Your task to perform on an android device: Go to network settings Image 0: 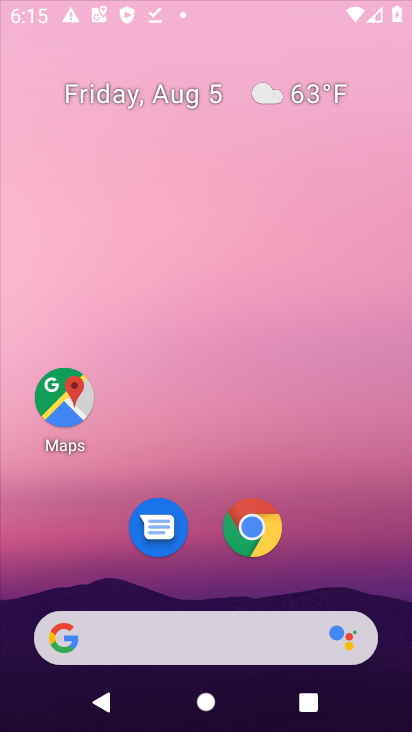
Step 0: click (213, 34)
Your task to perform on an android device: Go to network settings Image 1: 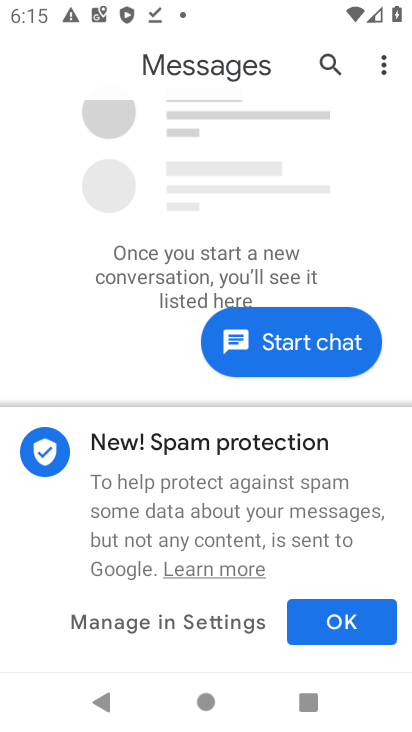
Step 1: drag from (201, 587) to (180, 168)
Your task to perform on an android device: Go to network settings Image 2: 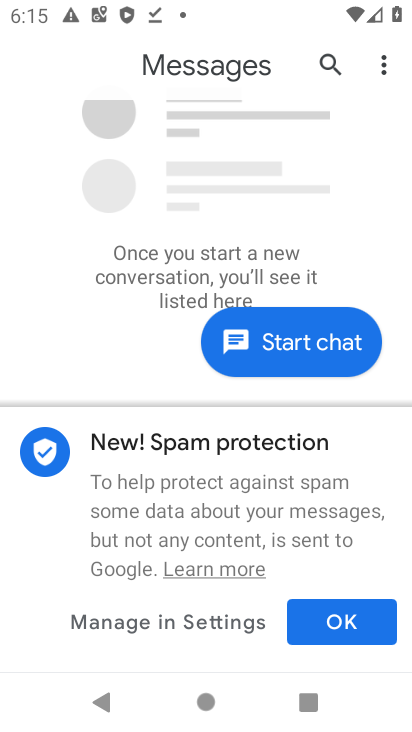
Step 2: press home button
Your task to perform on an android device: Go to network settings Image 3: 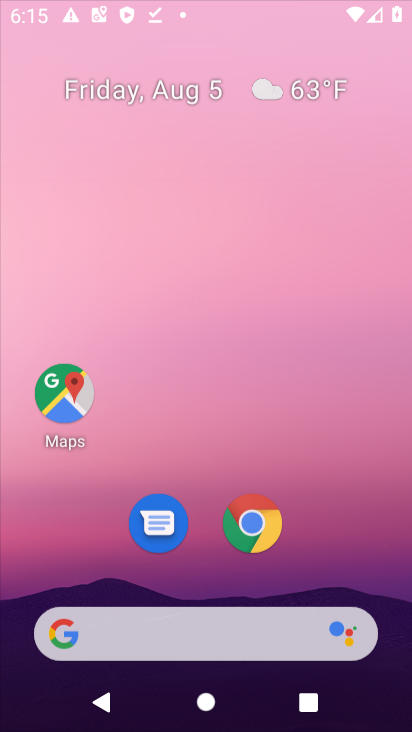
Step 3: drag from (262, 426) to (276, 54)
Your task to perform on an android device: Go to network settings Image 4: 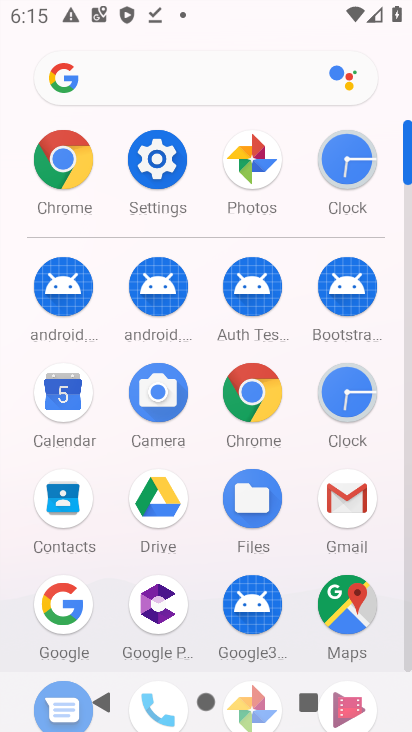
Step 4: click (335, 474)
Your task to perform on an android device: Go to network settings Image 5: 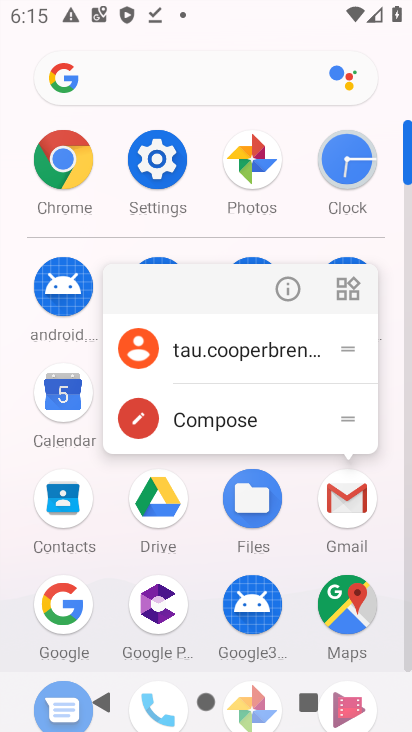
Step 5: click (292, 287)
Your task to perform on an android device: Go to network settings Image 6: 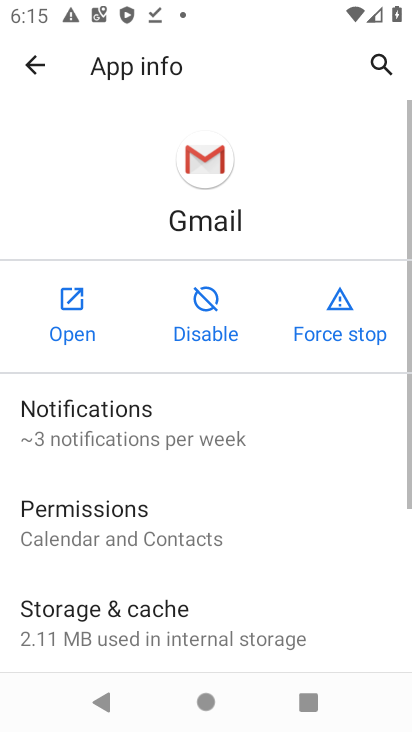
Step 6: click (69, 292)
Your task to perform on an android device: Go to network settings Image 7: 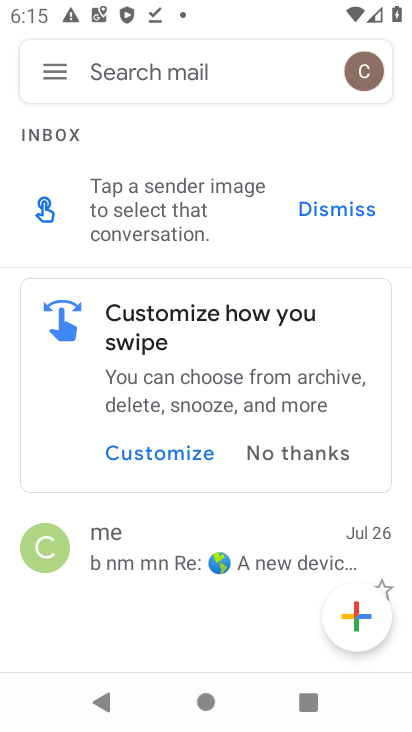
Step 7: drag from (241, 555) to (250, 195)
Your task to perform on an android device: Go to network settings Image 8: 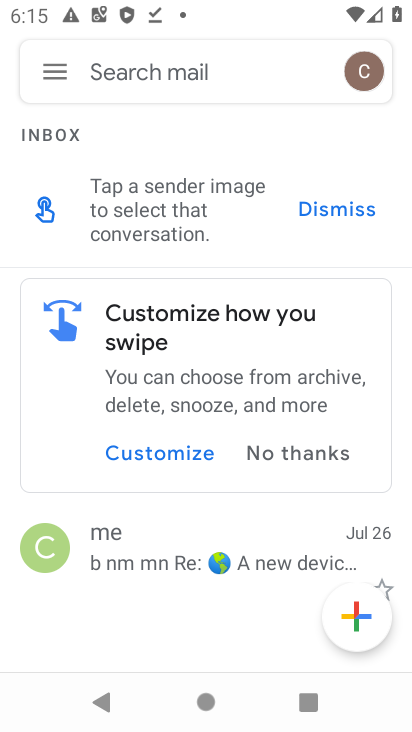
Step 8: click (62, 80)
Your task to perform on an android device: Go to network settings Image 9: 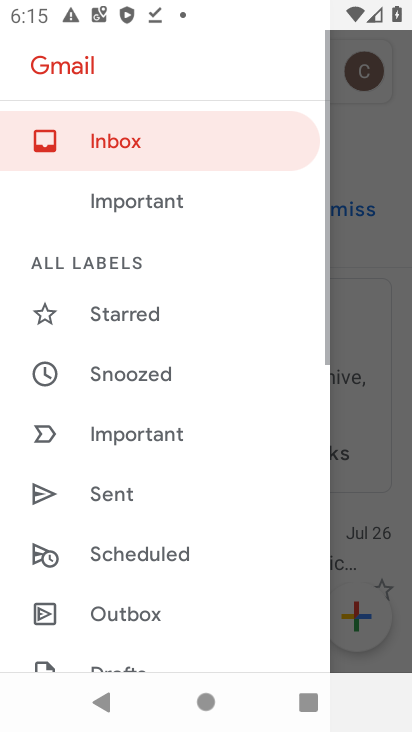
Step 9: press home button
Your task to perform on an android device: Go to network settings Image 10: 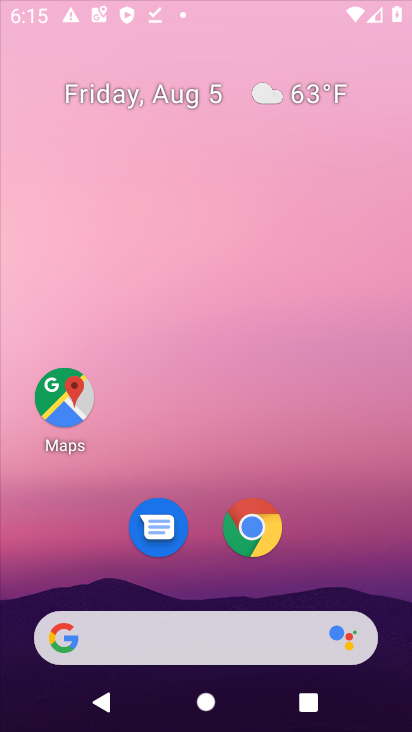
Step 10: drag from (143, 569) to (333, 48)
Your task to perform on an android device: Go to network settings Image 11: 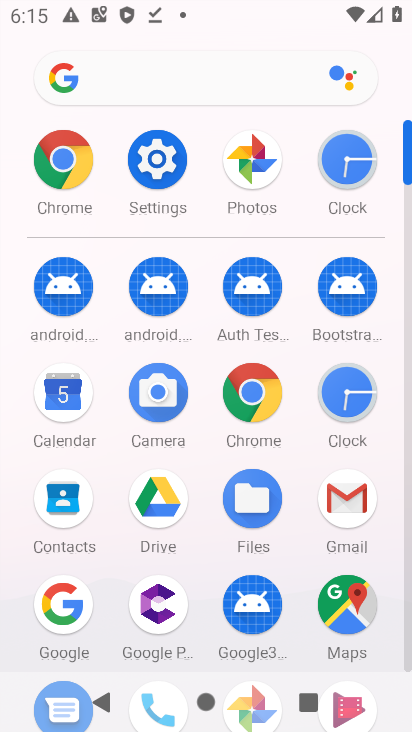
Step 11: click (144, 117)
Your task to perform on an android device: Go to network settings Image 12: 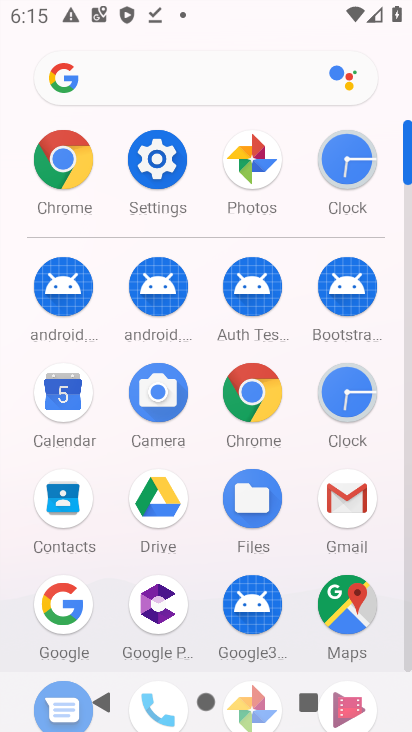
Step 12: click (142, 120)
Your task to perform on an android device: Go to network settings Image 13: 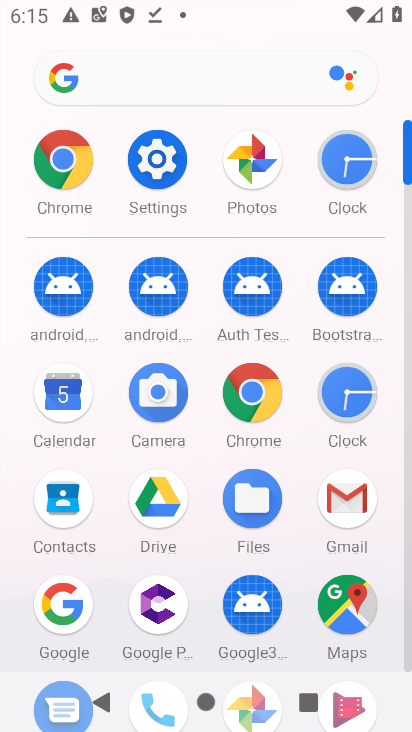
Step 13: click (160, 151)
Your task to perform on an android device: Go to network settings Image 14: 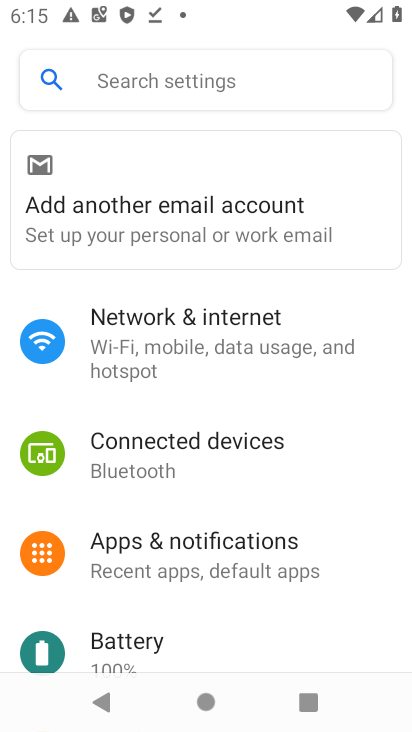
Step 14: click (160, 342)
Your task to perform on an android device: Go to network settings Image 15: 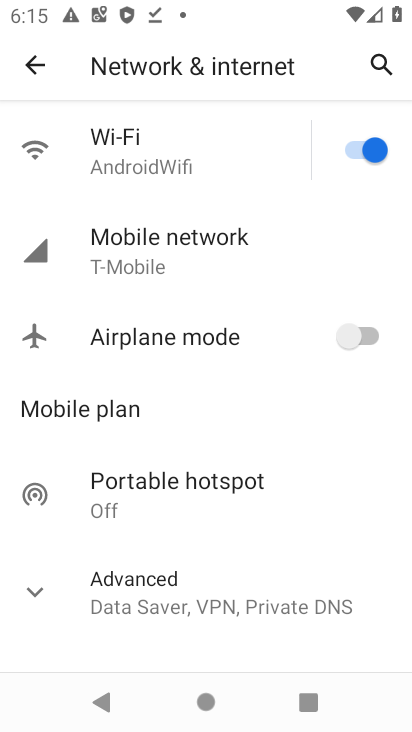
Step 15: drag from (195, 483) to (269, 180)
Your task to perform on an android device: Go to network settings Image 16: 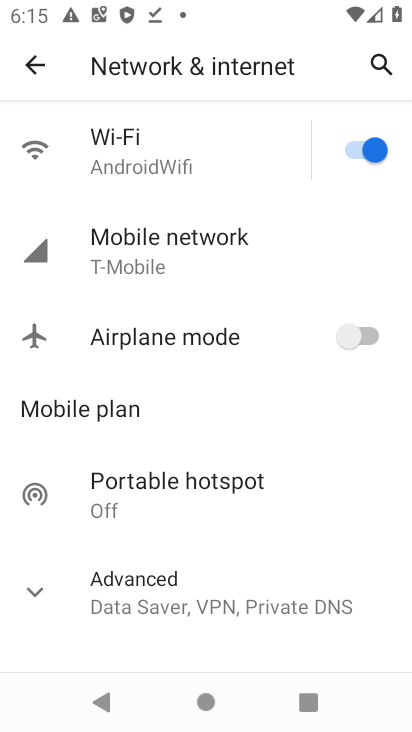
Step 16: drag from (203, 190) to (285, 500)
Your task to perform on an android device: Go to network settings Image 17: 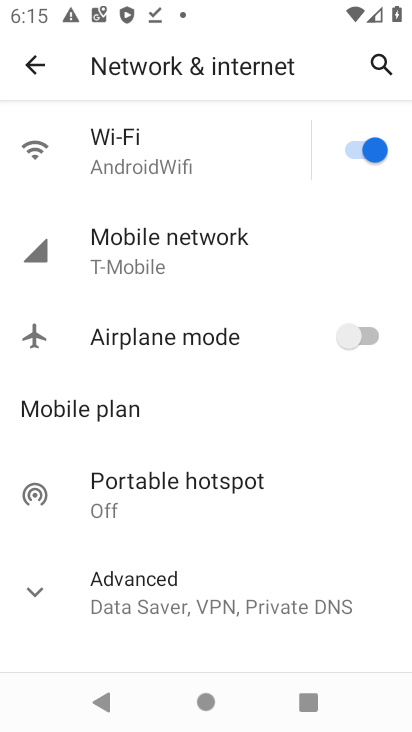
Step 17: drag from (234, 227) to (264, 600)
Your task to perform on an android device: Go to network settings Image 18: 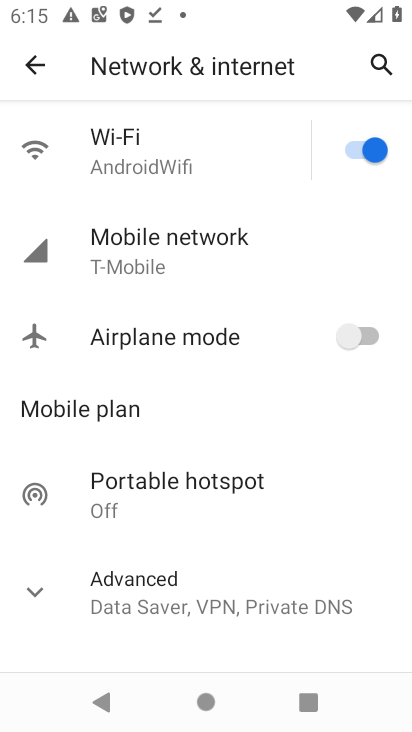
Step 18: click (138, 266)
Your task to perform on an android device: Go to network settings Image 19: 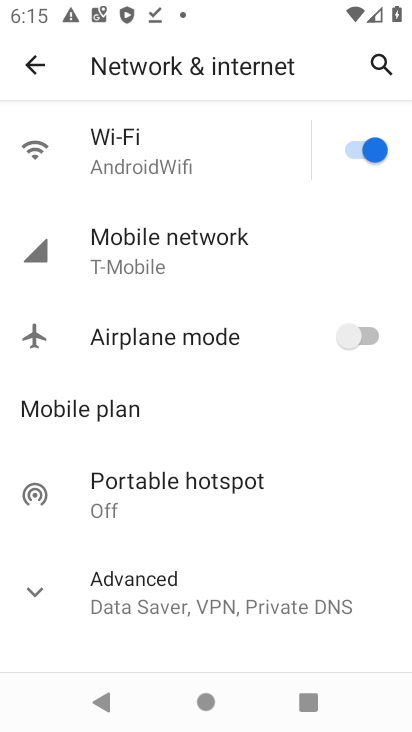
Step 19: task complete